Your task to perform on an android device: Clear all items from cart on ebay. Image 0: 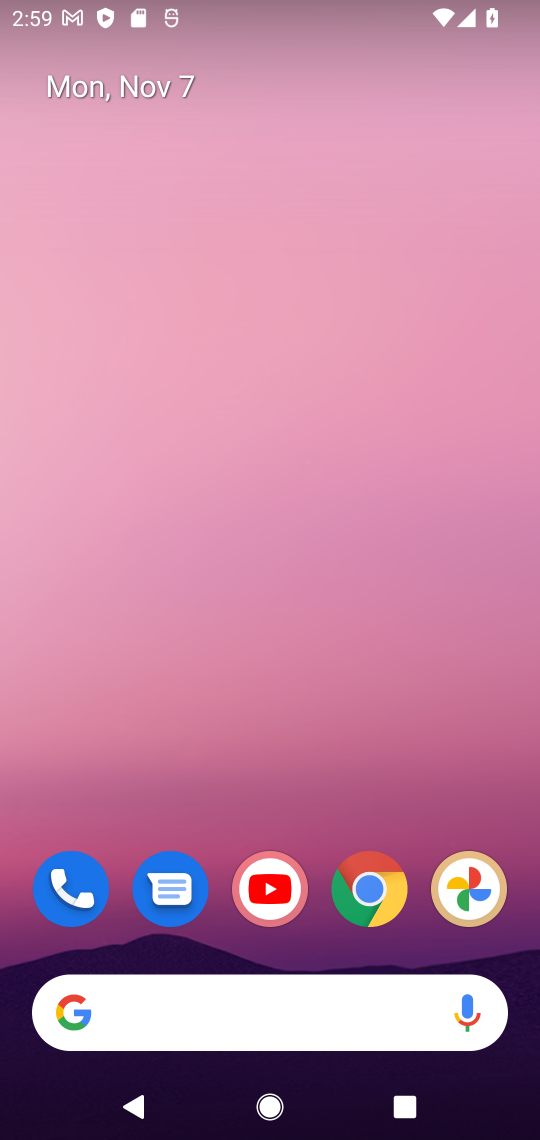
Step 0: click (365, 890)
Your task to perform on an android device: Clear all items from cart on ebay. Image 1: 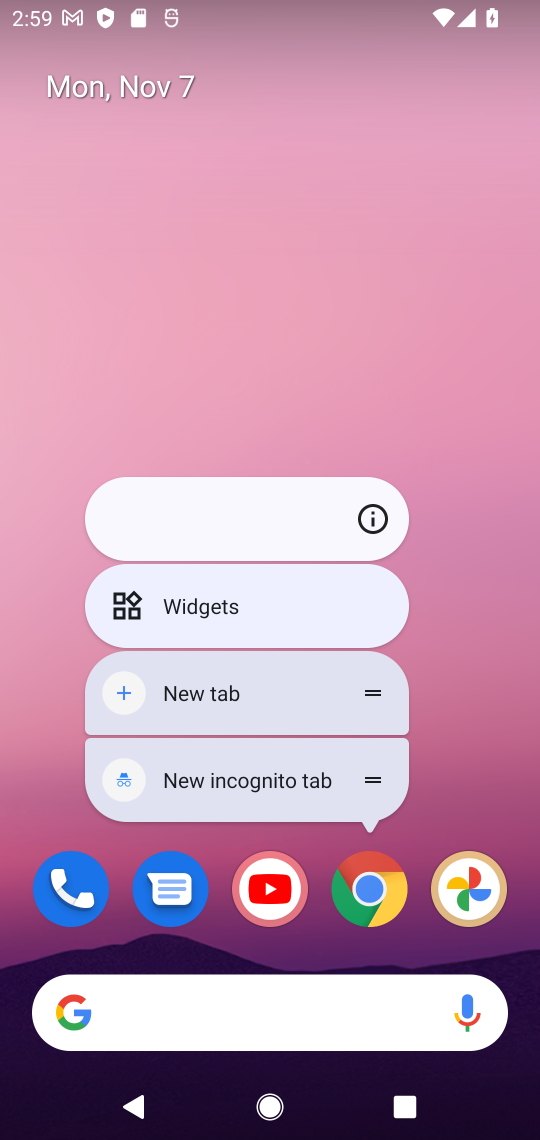
Step 1: click (365, 890)
Your task to perform on an android device: Clear all items from cart on ebay. Image 2: 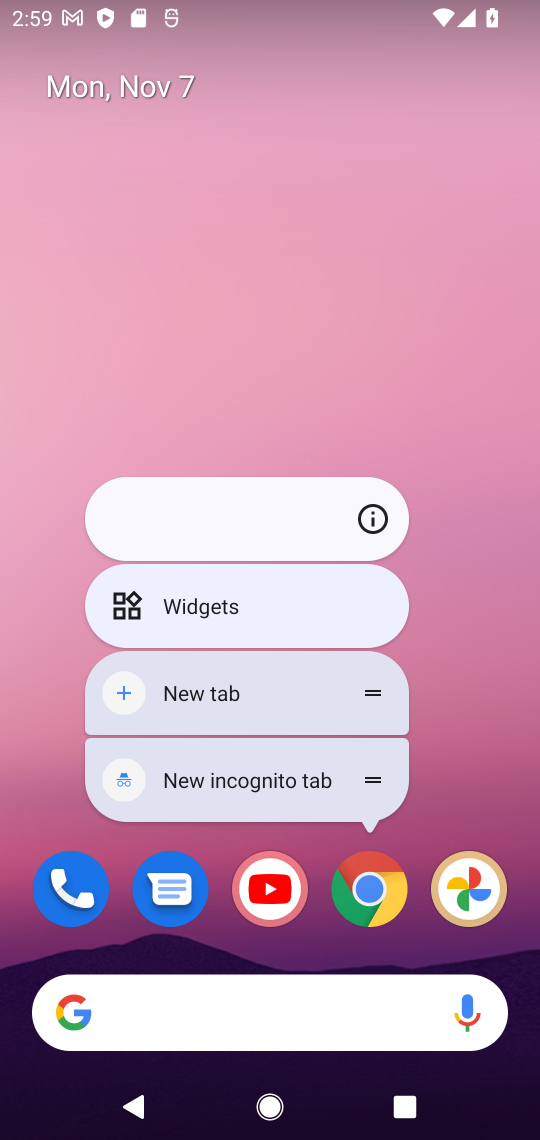
Step 2: click (365, 890)
Your task to perform on an android device: Clear all items from cart on ebay. Image 3: 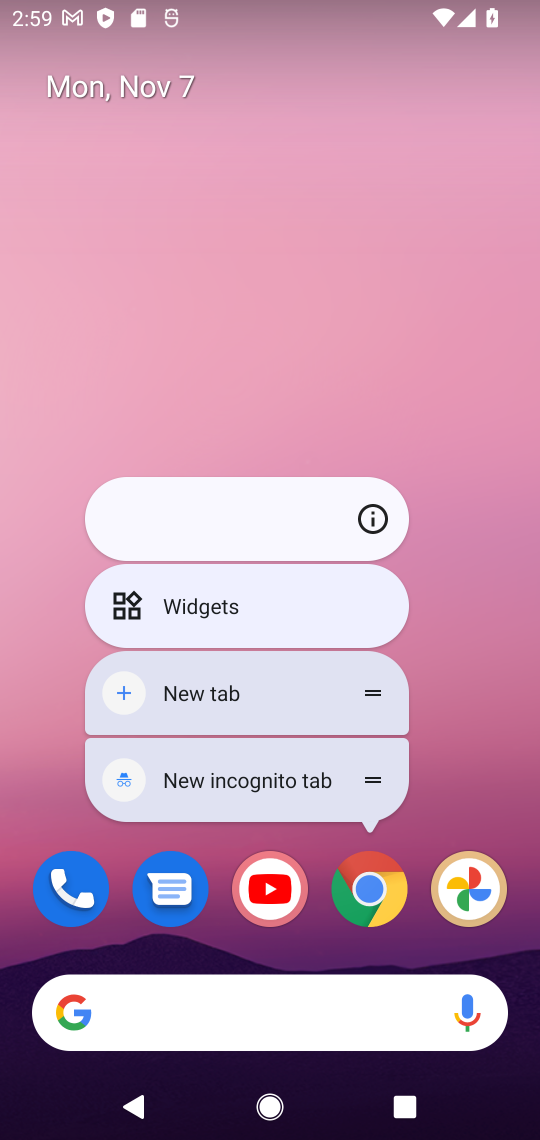
Step 3: click (365, 890)
Your task to perform on an android device: Clear all items from cart on ebay. Image 4: 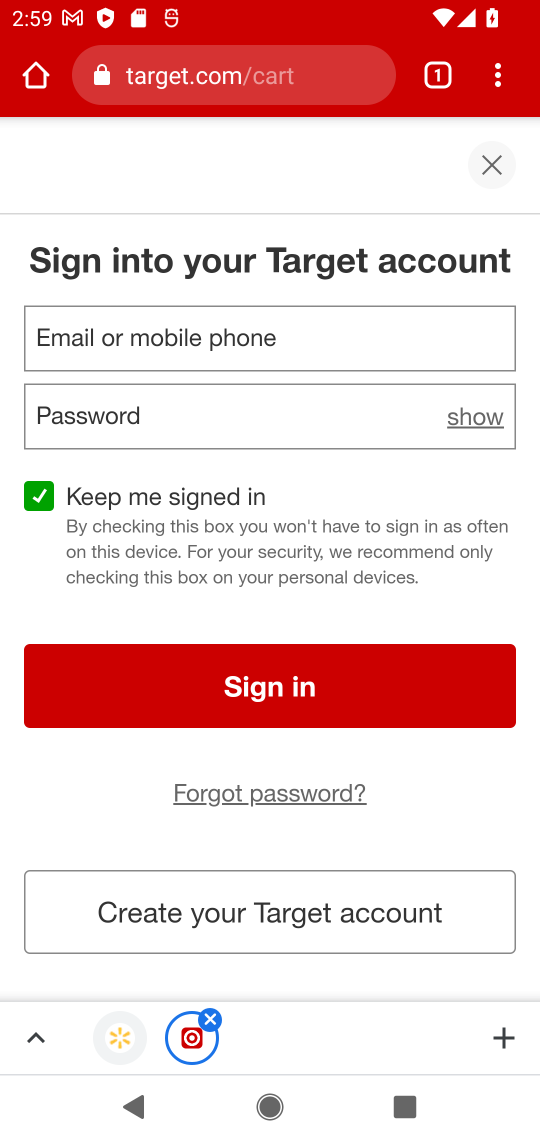
Step 4: click (284, 64)
Your task to perform on an android device: Clear all items from cart on ebay. Image 5: 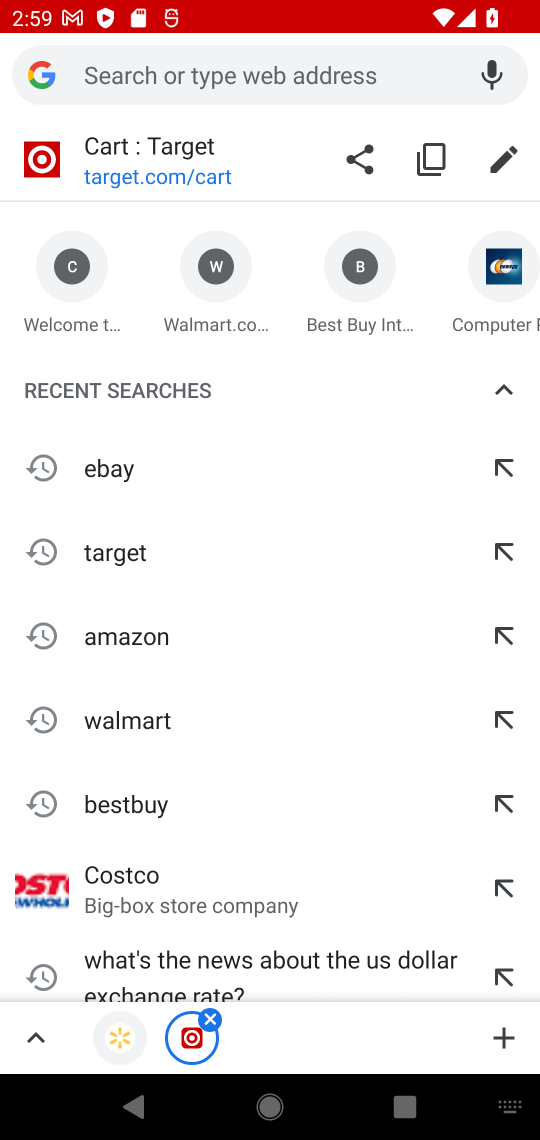
Step 5: type "ebay"
Your task to perform on an android device: Clear all items from cart on ebay. Image 6: 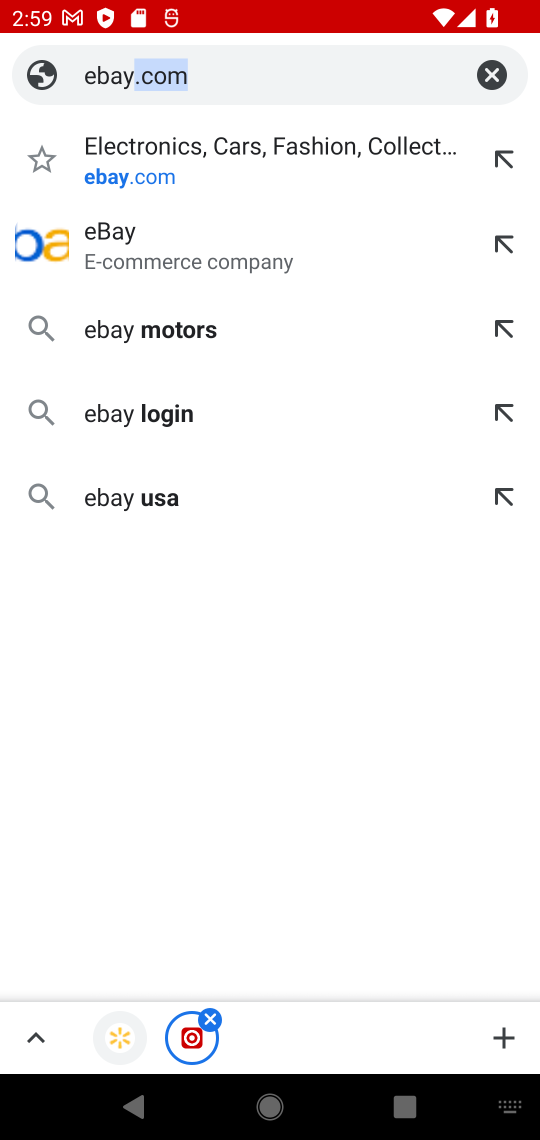
Step 6: click (114, 152)
Your task to perform on an android device: Clear all items from cart on ebay. Image 7: 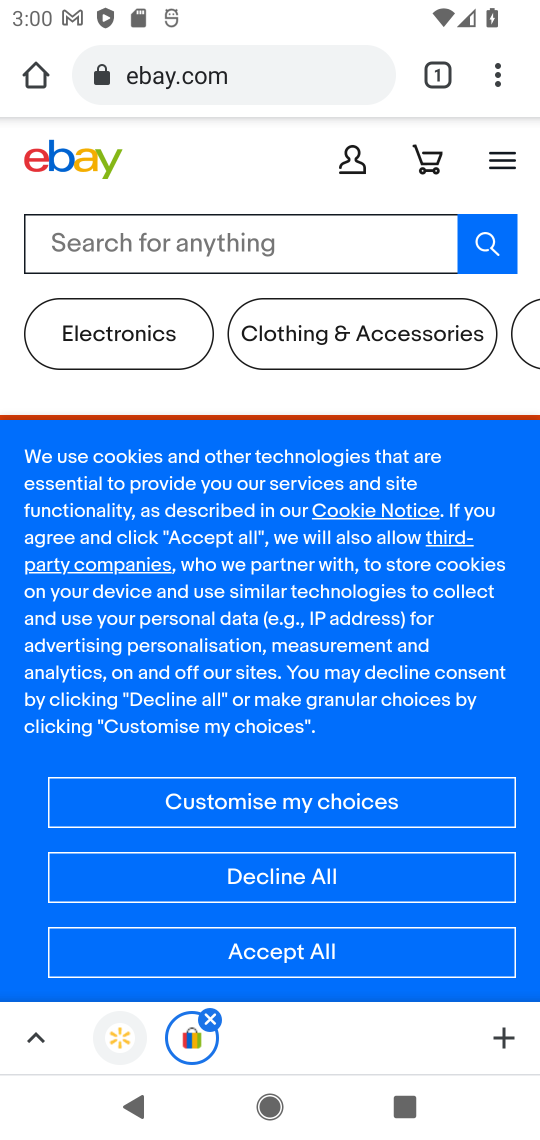
Step 7: click (273, 233)
Your task to perform on an android device: Clear all items from cart on ebay. Image 8: 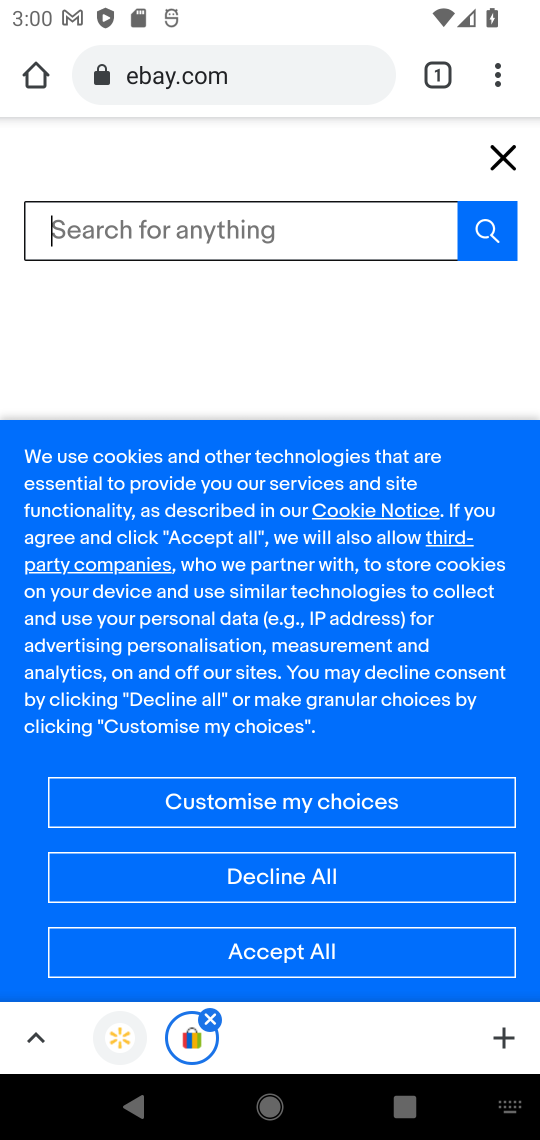
Step 8: click (502, 149)
Your task to perform on an android device: Clear all items from cart on ebay. Image 9: 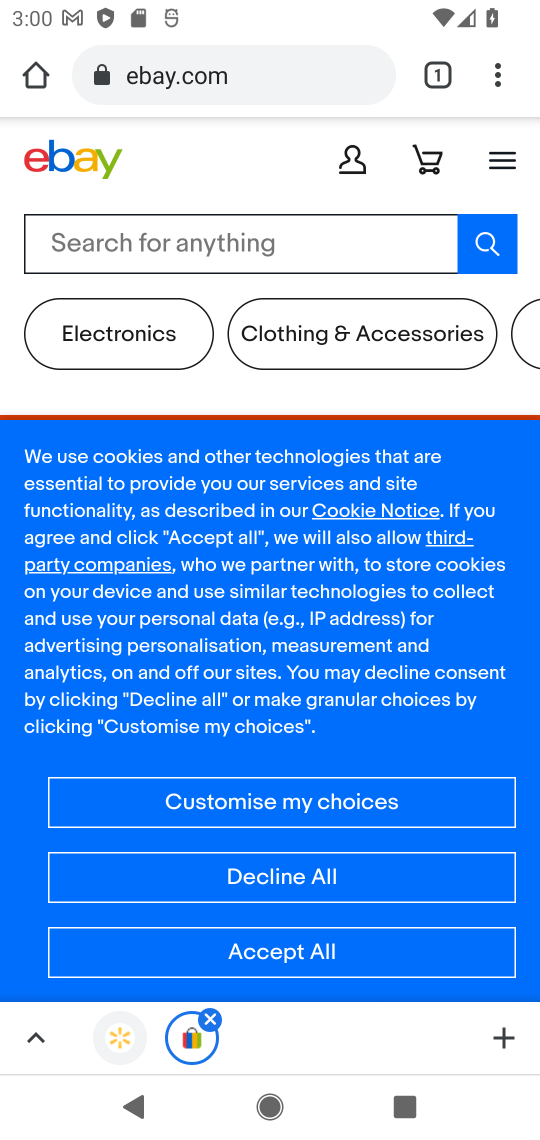
Step 9: click (436, 152)
Your task to perform on an android device: Clear all items from cart on ebay. Image 10: 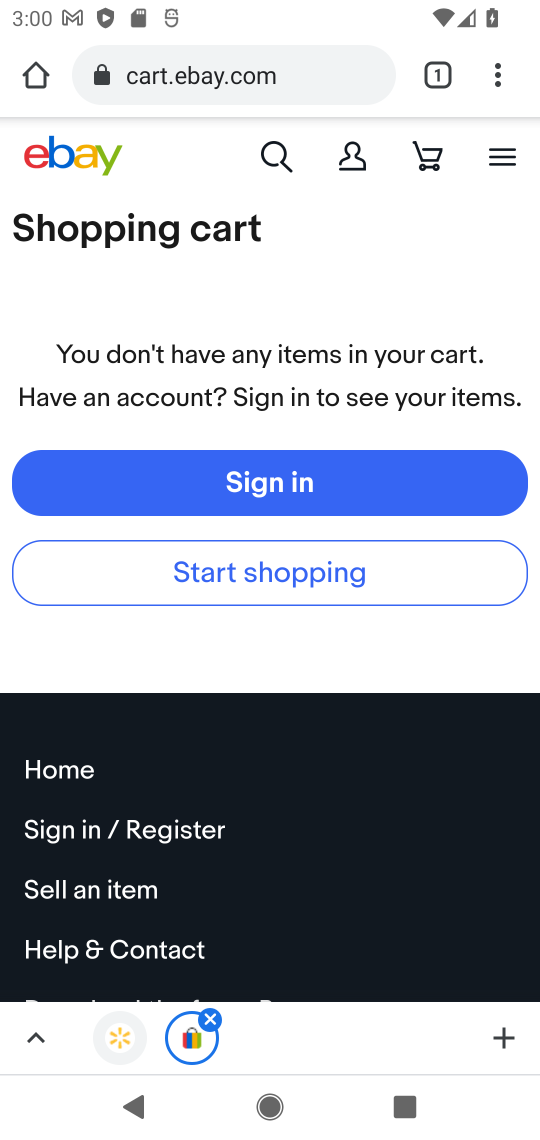
Step 10: task complete